Your task to perform on an android device: Open Youtube and go to the subscriptions tab Image 0: 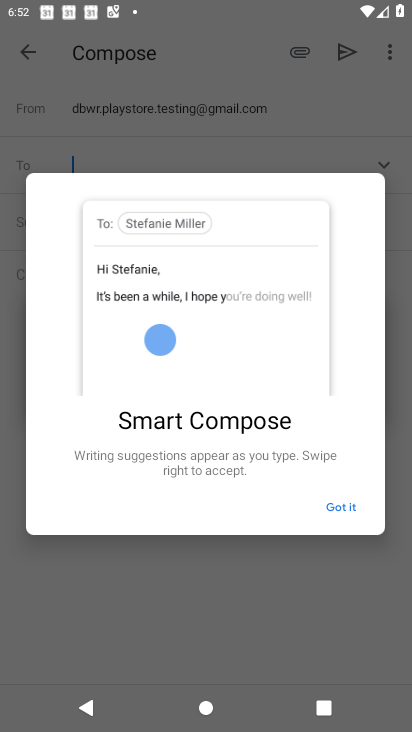
Step 0: press home button
Your task to perform on an android device: Open Youtube and go to the subscriptions tab Image 1: 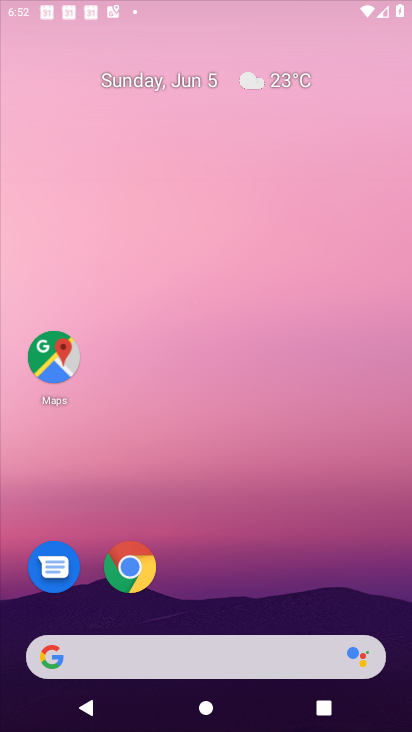
Step 1: drag from (389, 637) to (275, 73)
Your task to perform on an android device: Open Youtube and go to the subscriptions tab Image 2: 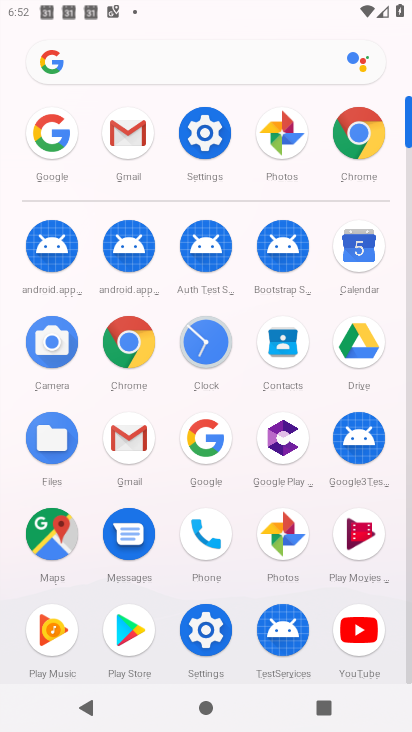
Step 2: click (348, 643)
Your task to perform on an android device: Open Youtube and go to the subscriptions tab Image 3: 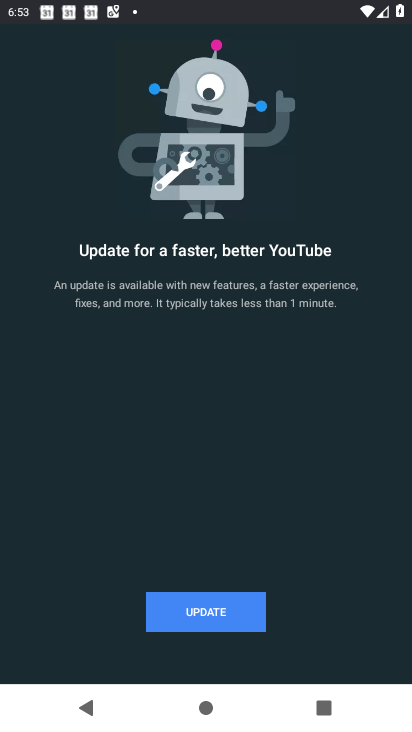
Step 3: click (194, 611)
Your task to perform on an android device: Open Youtube and go to the subscriptions tab Image 4: 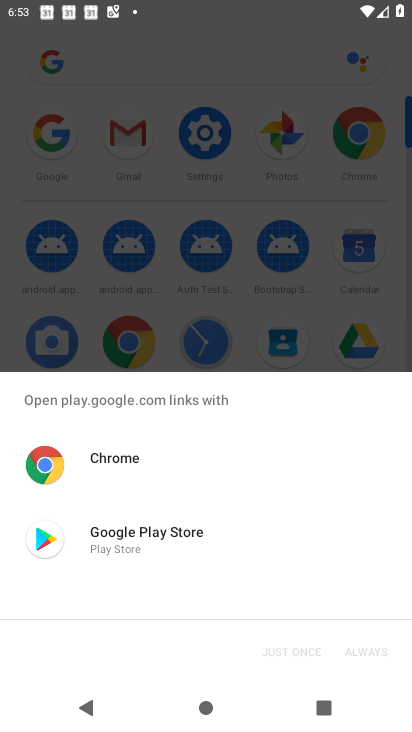
Step 4: click (121, 546)
Your task to perform on an android device: Open Youtube and go to the subscriptions tab Image 5: 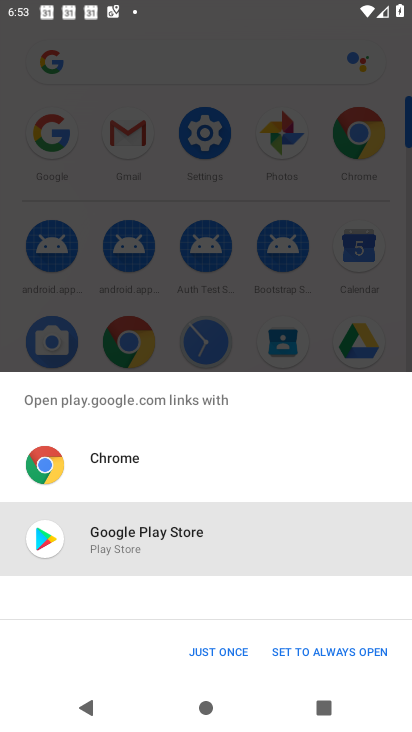
Step 5: click (210, 663)
Your task to perform on an android device: Open Youtube and go to the subscriptions tab Image 6: 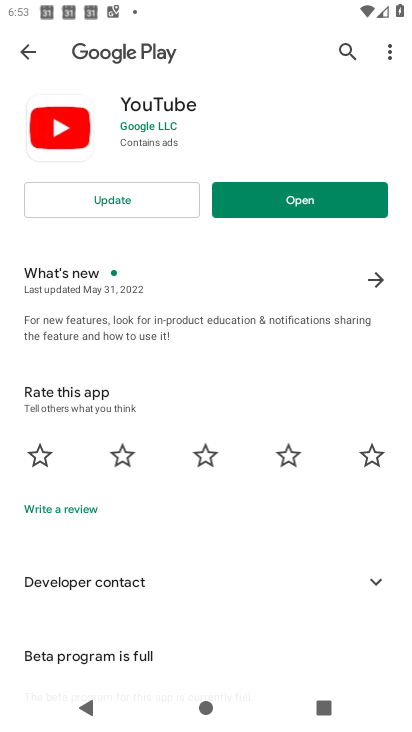
Step 6: click (104, 203)
Your task to perform on an android device: Open Youtube and go to the subscriptions tab Image 7: 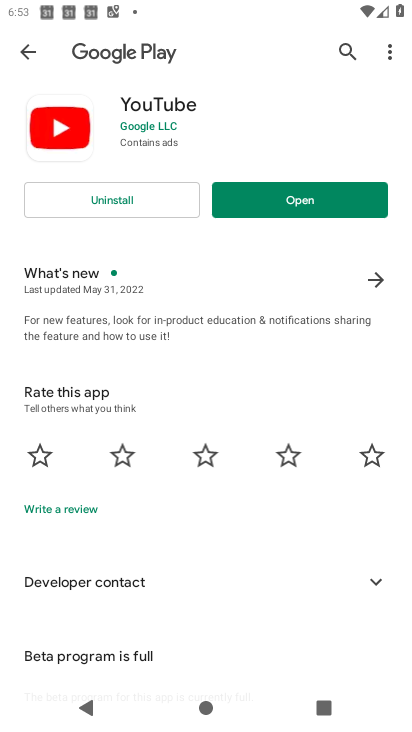
Step 7: click (302, 196)
Your task to perform on an android device: Open Youtube and go to the subscriptions tab Image 8: 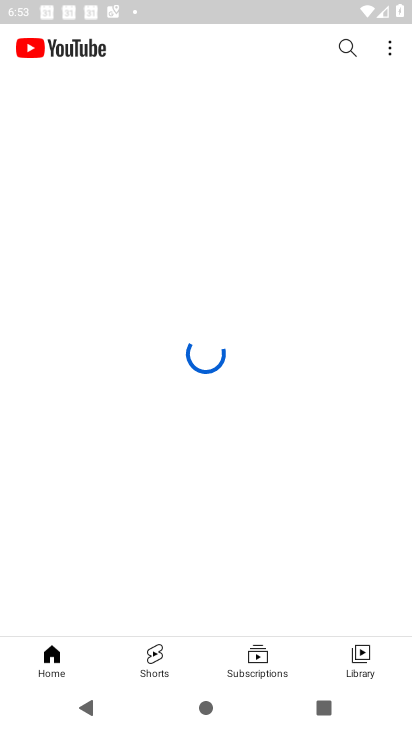
Step 8: click (265, 667)
Your task to perform on an android device: Open Youtube and go to the subscriptions tab Image 9: 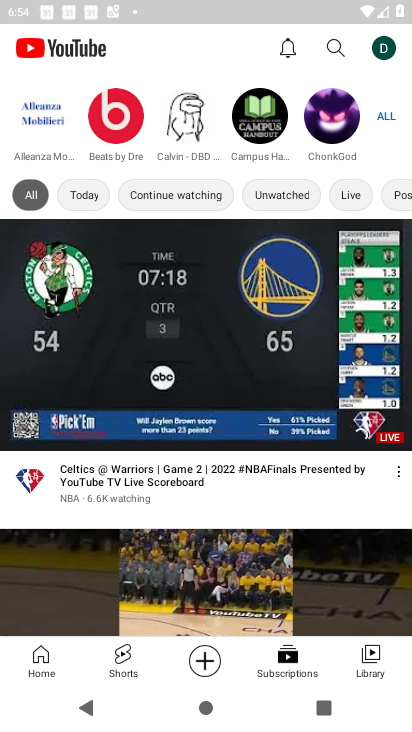
Step 9: task complete